Your task to perform on an android device: Go to privacy settings Image 0: 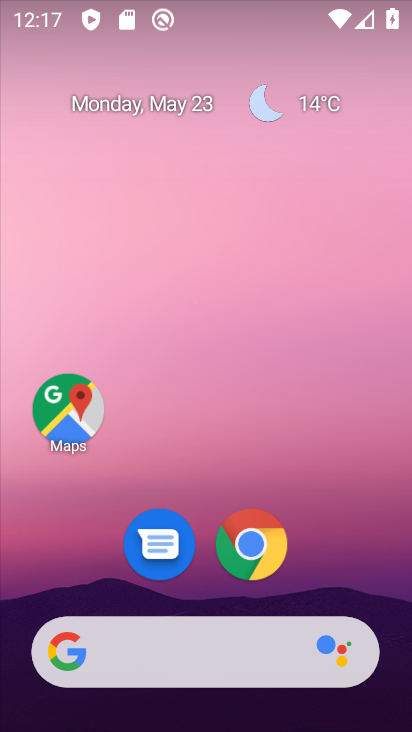
Step 0: drag from (350, 547) to (211, 37)
Your task to perform on an android device: Go to privacy settings Image 1: 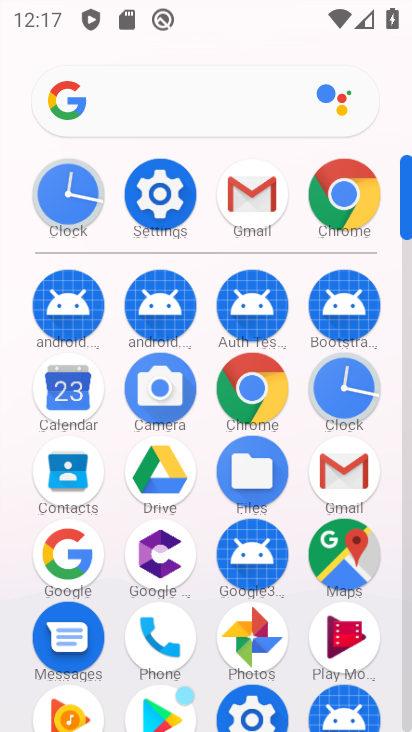
Step 1: click (171, 192)
Your task to perform on an android device: Go to privacy settings Image 2: 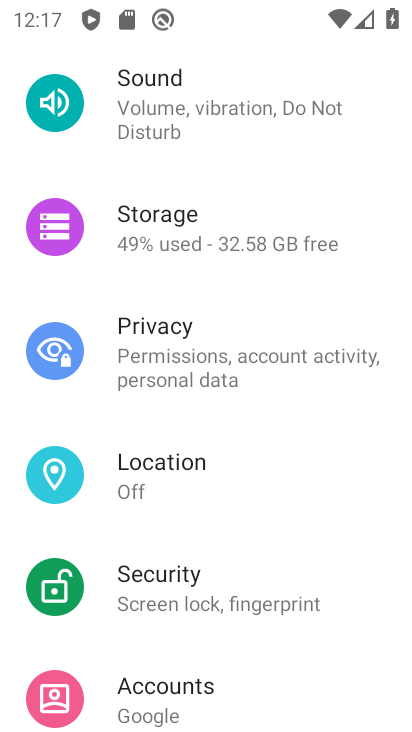
Step 2: drag from (203, 477) to (219, 51)
Your task to perform on an android device: Go to privacy settings Image 3: 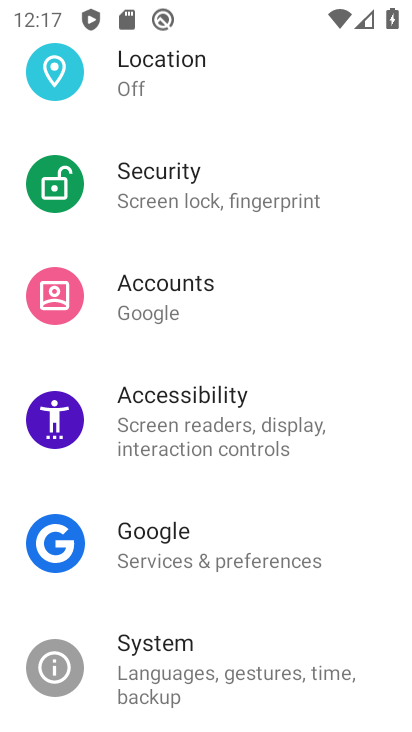
Step 3: drag from (180, 225) to (213, 571)
Your task to perform on an android device: Go to privacy settings Image 4: 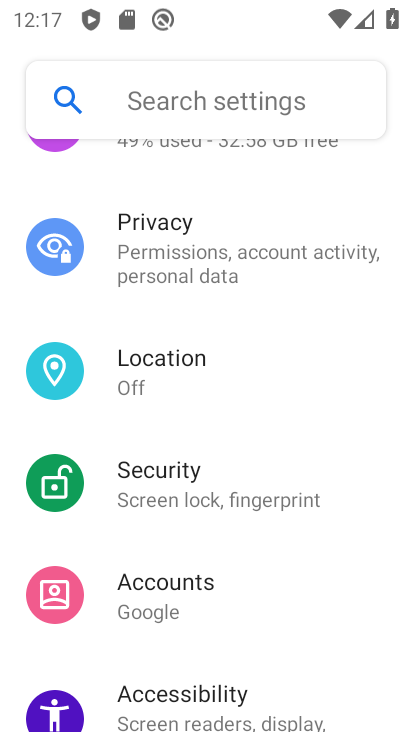
Step 4: click (203, 284)
Your task to perform on an android device: Go to privacy settings Image 5: 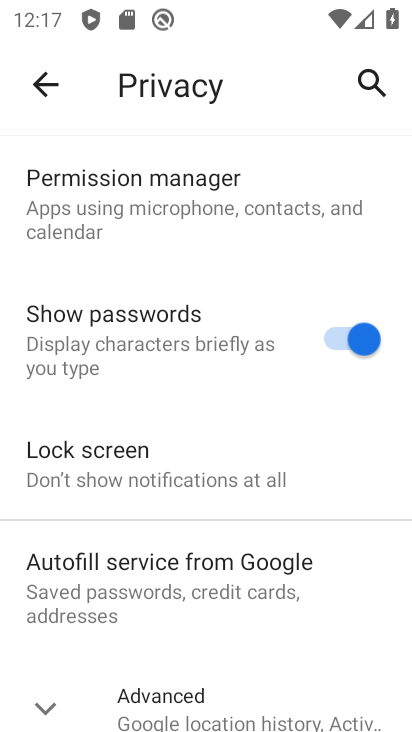
Step 5: task complete